Your task to perform on an android device: toggle translation in the chrome app Image 0: 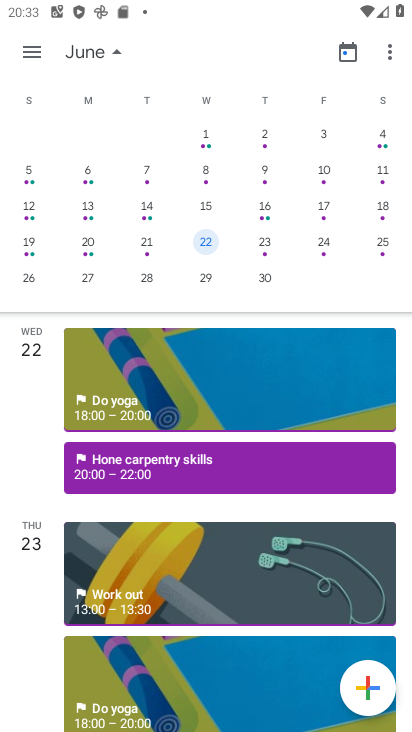
Step 0: press home button
Your task to perform on an android device: toggle translation in the chrome app Image 1: 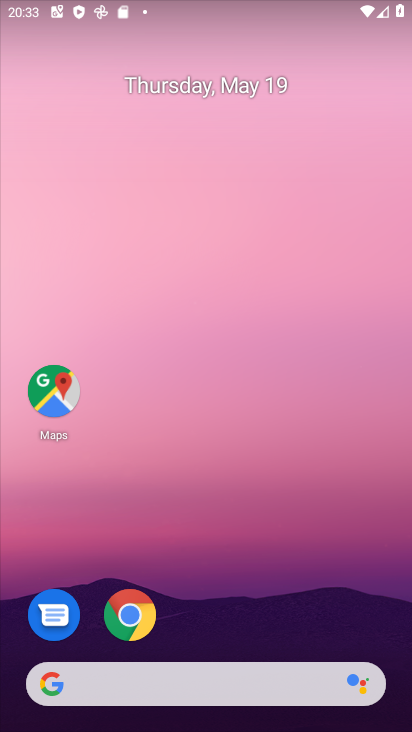
Step 1: click (131, 607)
Your task to perform on an android device: toggle translation in the chrome app Image 2: 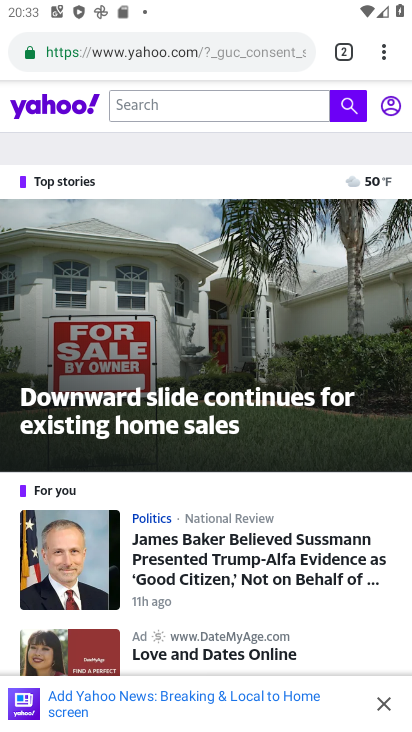
Step 2: click (378, 53)
Your task to perform on an android device: toggle translation in the chrome app Image 3: 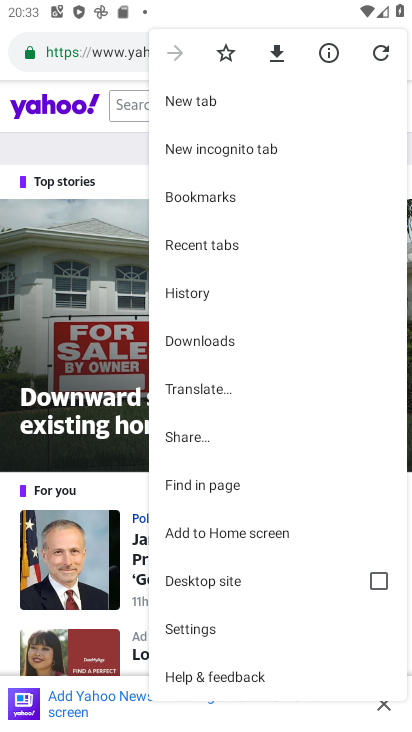
Step 3: click (198, 629)
Your task to perform on an android device: toggle translation in the chrome app Image 4: 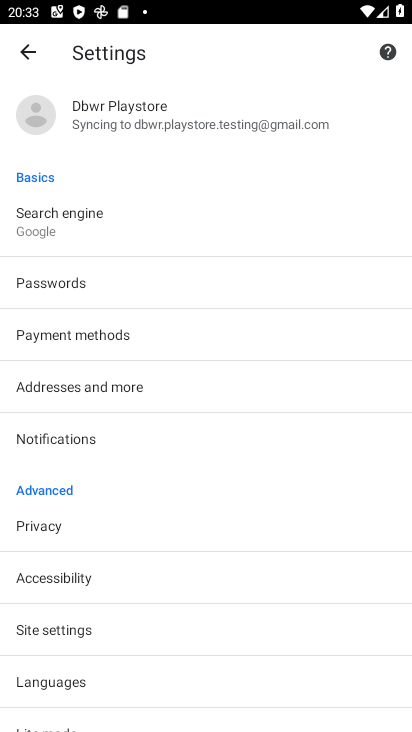
Step 4: click (54, 682)
Your task to perform on an android device: toggle translation in the chrome app Image 5: 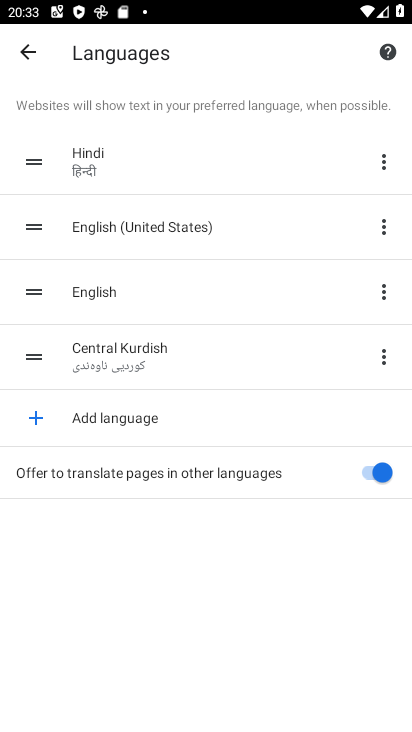
Step 5: click (369, 471)
Your task to perform on an android device: toggle translation in the chrome app Image 6: 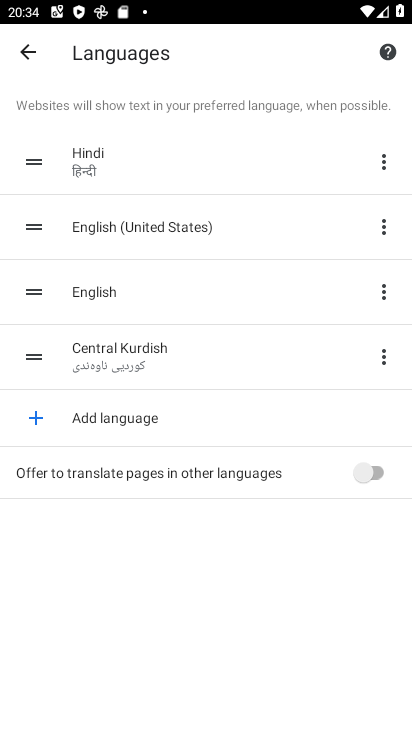
Step 6: task complete